Your task to perform on an android device: Go to Yahoo.com Image 0: 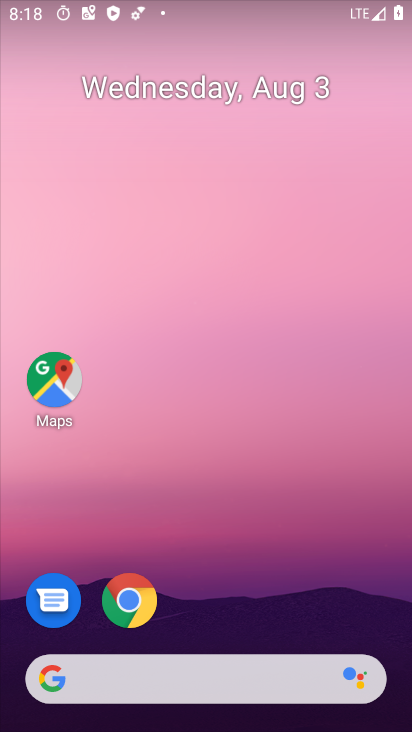
Step 0: click (135, 607)
Your task to perform on an android device: Go to Yahoo.com Image 1: 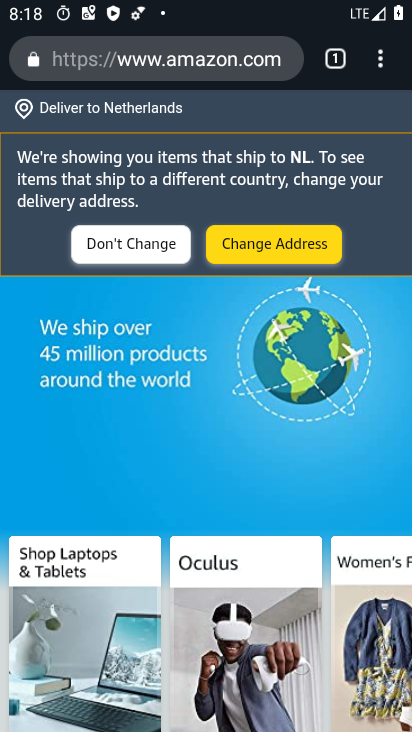
Step 1: click (168, 60)
Your task to perform on an android device: Go to Yahoo.com Image 2: 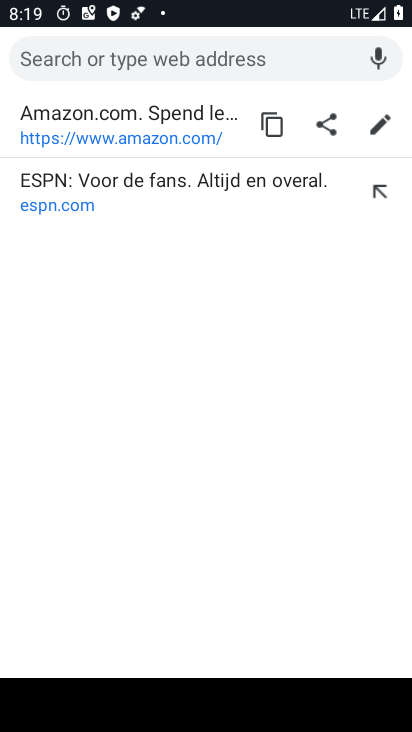
Step 2: type "yahoo.com"
Your task to perform on an android device: Go to Yahoo.com Image 3: 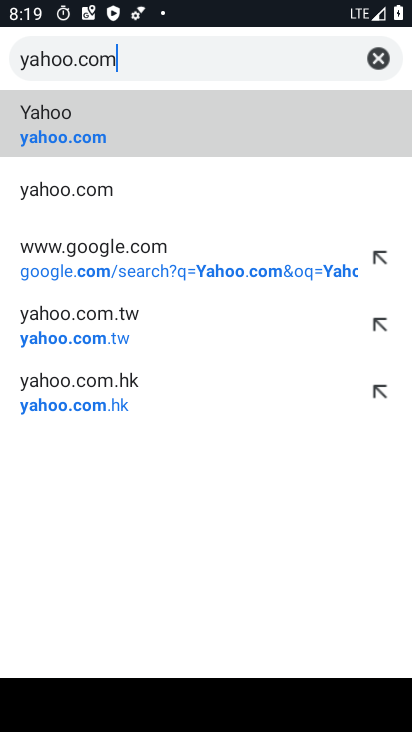
Step 3: click (120, 128)
Your task to perform on an android device: Go to Yahoo.com Image 4: 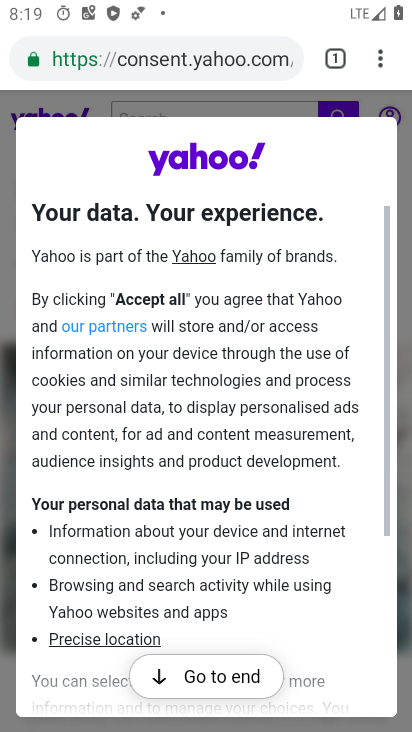
Step 4: task complete